Your task to perform on an android device: Go to settings Image 0: 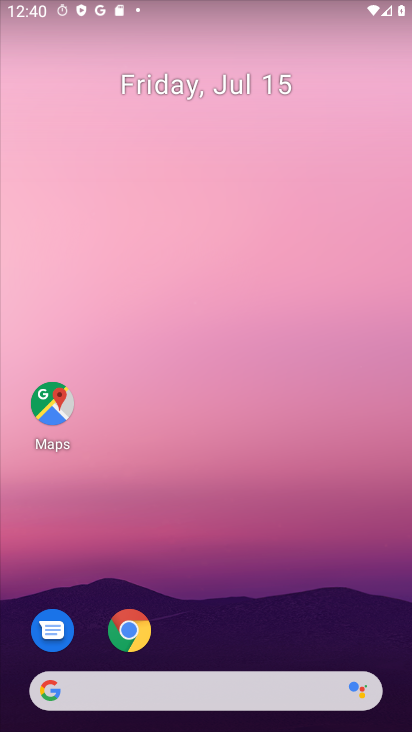
Step 0: drag from (187, 654) to (384, 44)
Your task to perform on an android device: Go to settings Image 1: 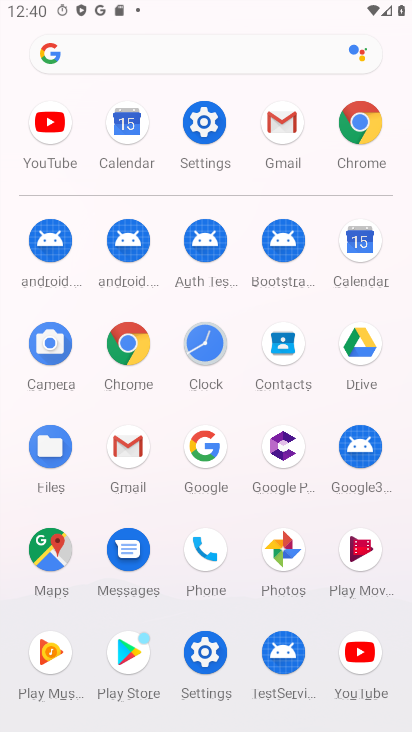
Step 1: click (214, 658)
Your task to perform on an android device: Go to settings Image 2: 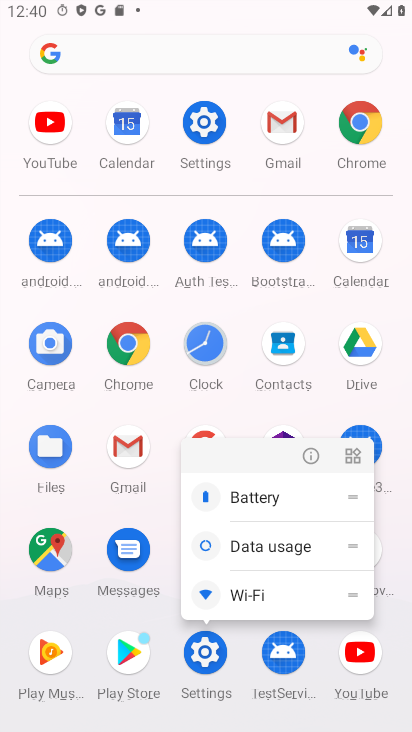
Step 2: click (306, 457)
Your task to perform on an android device: Go to settings Image 3: 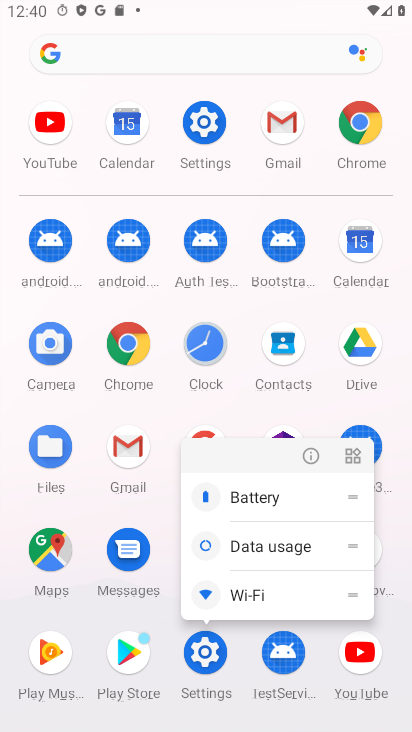
Step 3: click (306, 457)
Your task to perform on an android device: Go to settings Image 4: 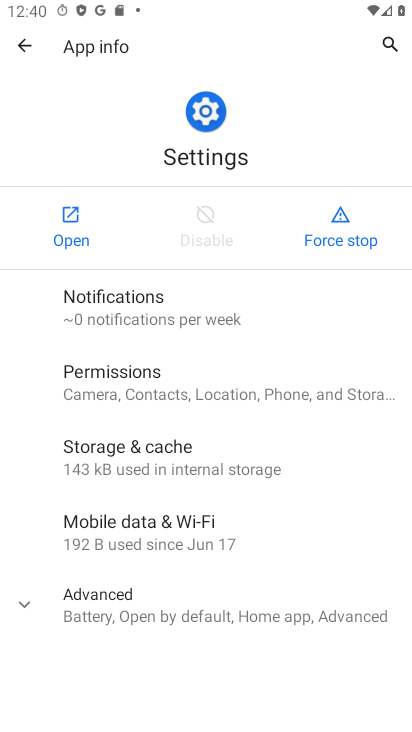
Step 4: click (69, 225)
Your task to perform on an android device: Go to settings Image 5: 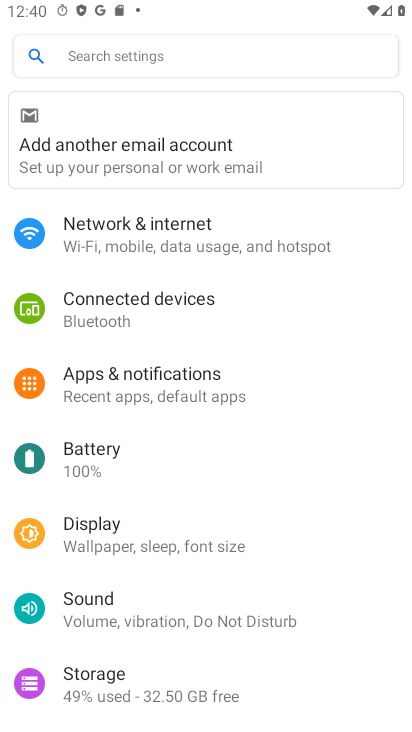
Step 5: drag from (193, 534) to (287, 136)
Your task to perform on an android device: Go to settings Image 6: 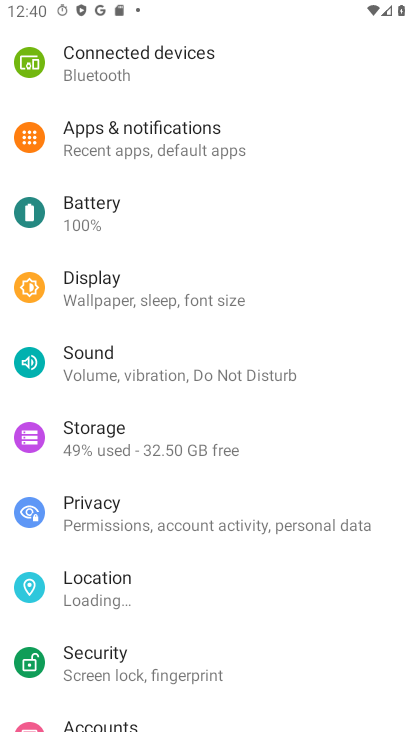
Step 6: click (55, 218)
Your task to perform on an android device: Go to settings Image 7: 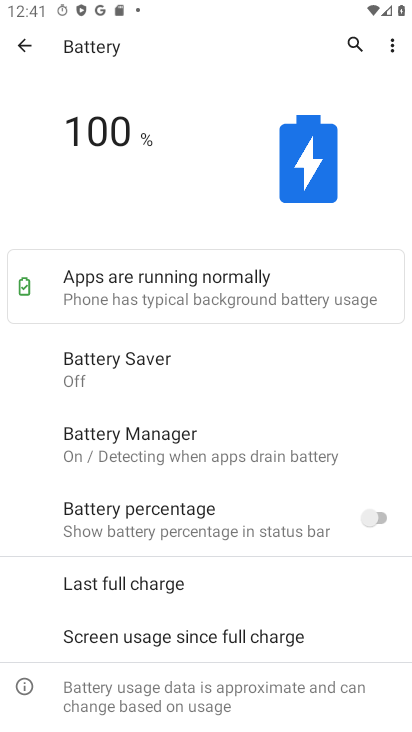
Step 7: task complete